Your task to perform on an android device: Open the calendar and show me this week's events Image 0: 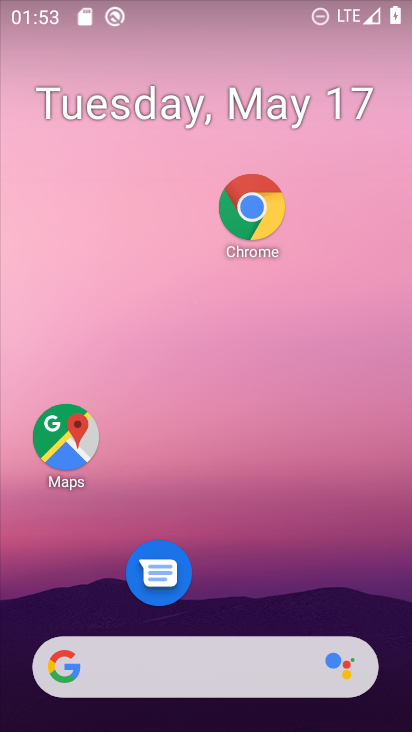
Step 0: drag from (206, 626) to (236, 56)
Your task to perform on an android device: Open the calendar and show me this week's events Image 1: 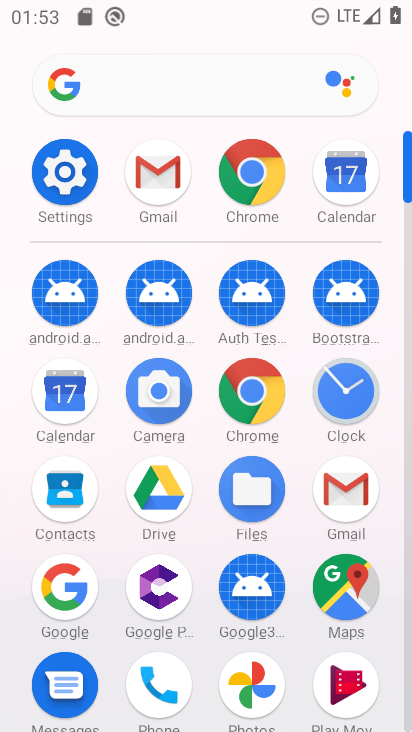
Step 1: click (45, 406)
Your task to perform on an android device: Open the calendar and show me this week's events Image 2: 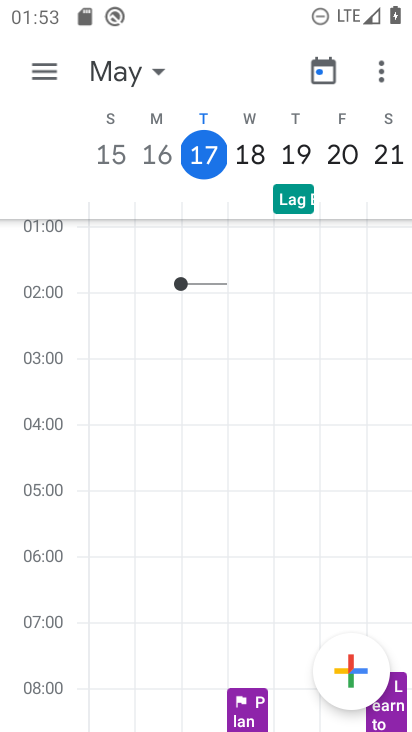
Step 2: click (55, 75)
Your task to perform on an android device: Open the calendar and show me this week's events Image 3: 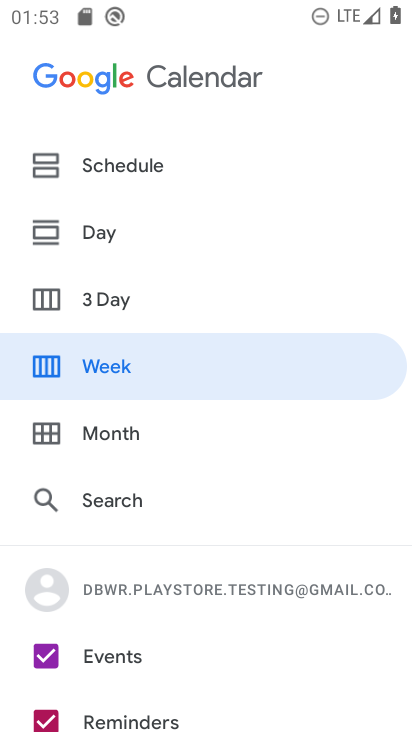
Step 3: click (142, 354)
Your task to perform on an android device: Open the calendar and show me this week's events Image 4: 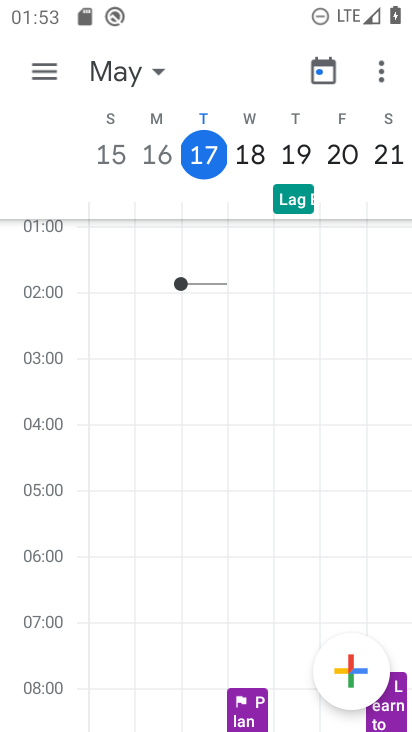
Step 4: task complete